Your task to perform on an android device: turn off picture-in-picture Image 0: 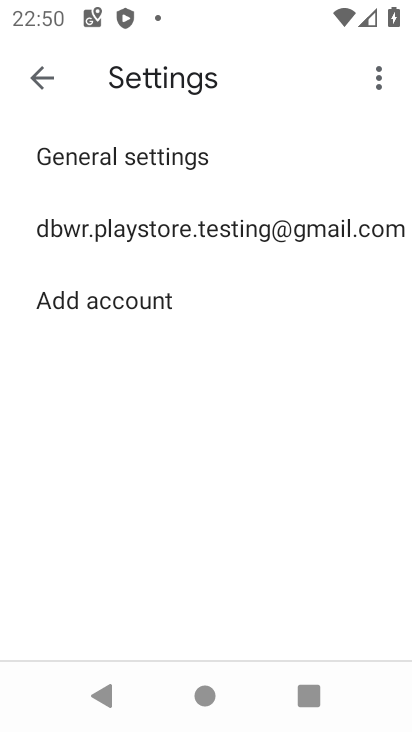
Step 0: press home button
Your task to perform on an android device: turn off picture-in-picture Image 1: 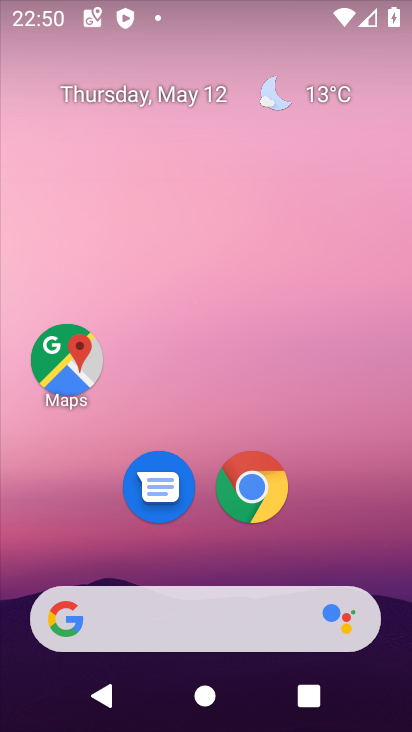
Step 1: click (253, 501)
Your task to perform on an android device: turn off picture-in-picture Image 2: 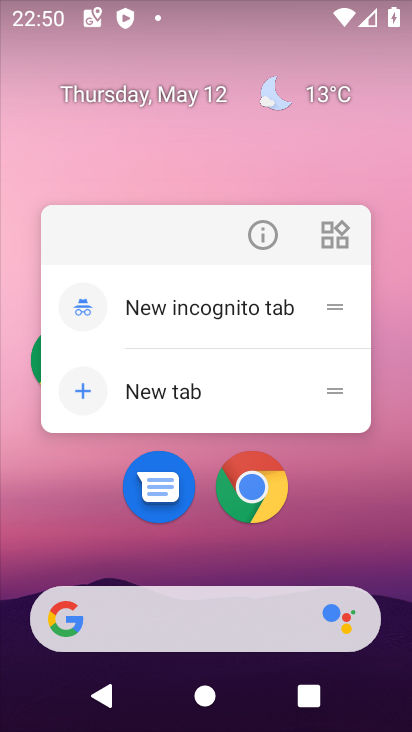
Step 2: click (265, 217)
Your task to perform on an android device: turn off picture-in-picture Image 3: 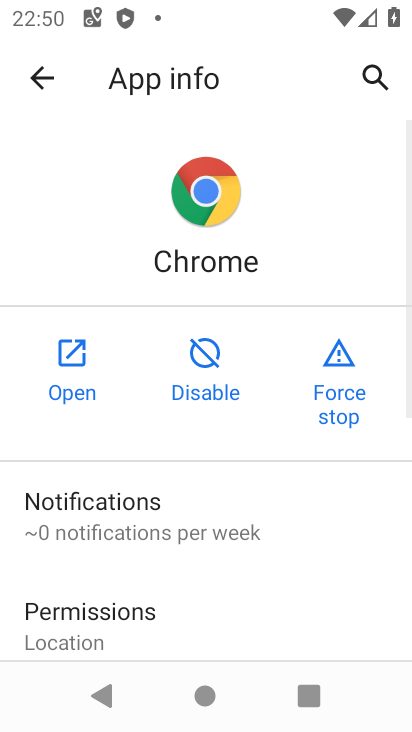
Step 3: drag from (139, 364) to (235, 111)
Your task to perform on an android device: turn off picture-in-picture Image 4: 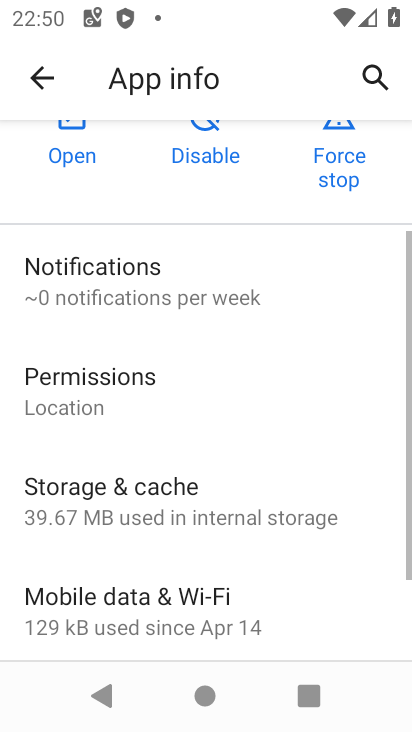
Step 4: drag from (172, 510) to (195, 243)
Your task to perform on an android device: turn off picture-in-picture Image 5: 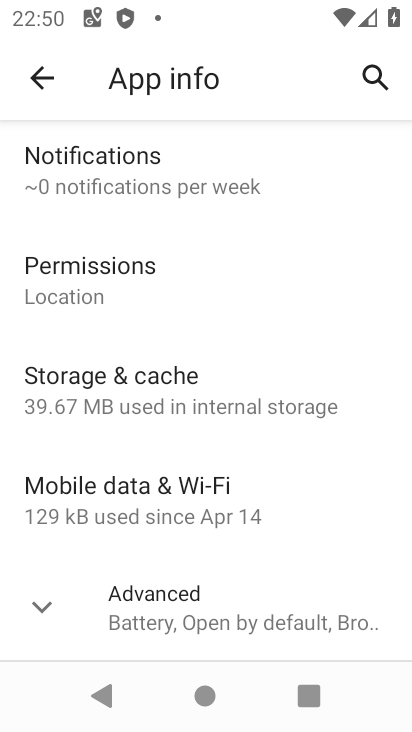
Step 5: click (203, 599)
Your task to perform on an android device: turn off picture-in-picture Image 6: 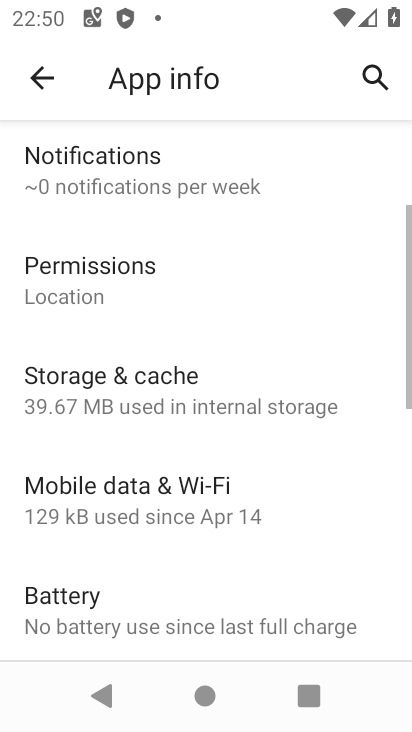
Step 6: drag from (203, 599) to (204, 84)
Your task to perform on an android device: turn off picture-in-picture Image 7: 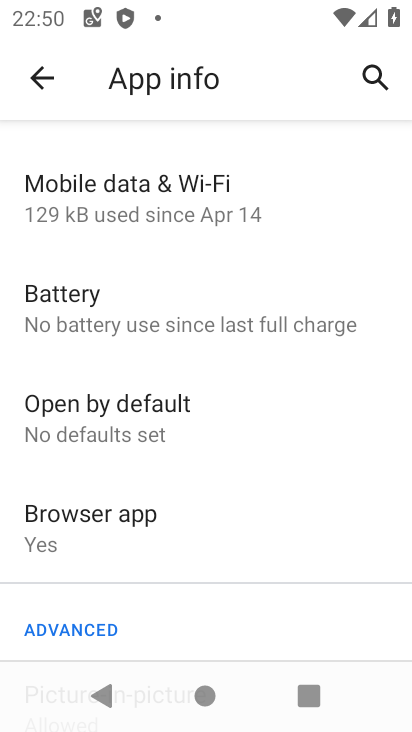
Step 7: drag from (92, 613) to (151, 260)
Your task to perform on an android device: turn off picture-in-picture Image 8: 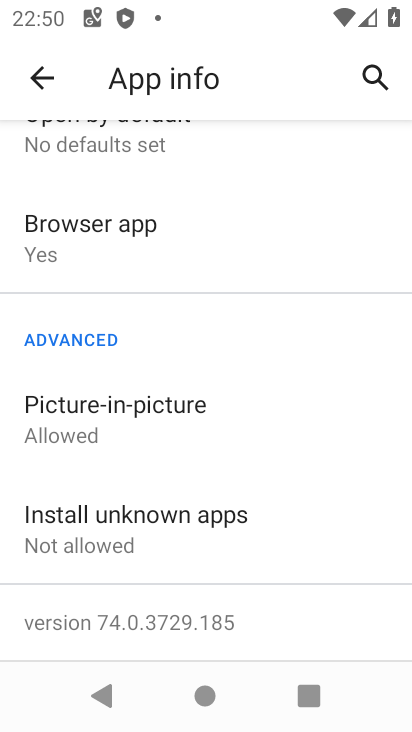
Step 8: click (176, 425)
Your task to perform on an android device: turn off picture-in-picture Image 9: 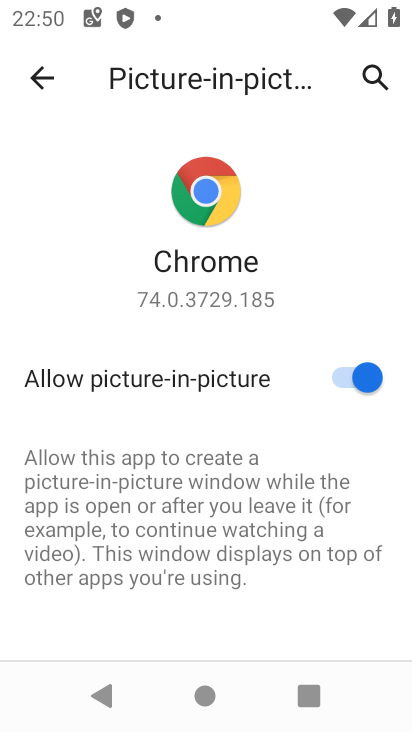
Step 9: click (338, 381)
Your task to perform on an android device: turn off picture-in-picture Image 10: 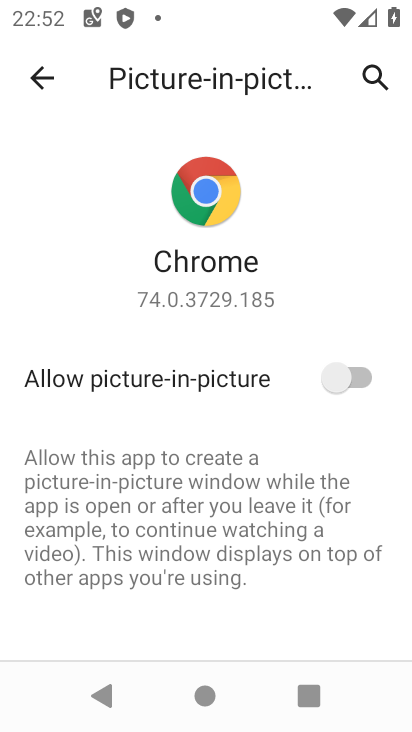
Step 10: task complete